Your task to perform on an android device: Open Google Chrome and open the bookmarks view Image 0: 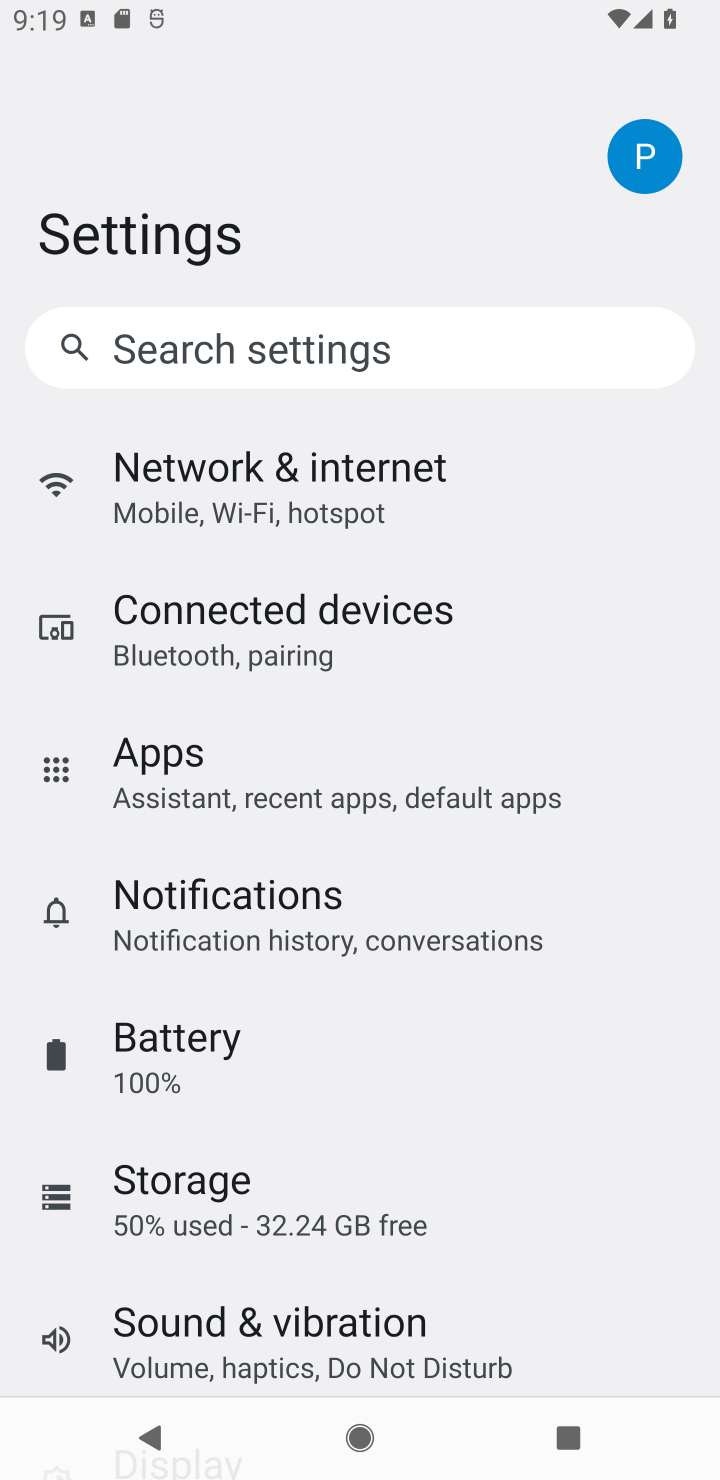
Step 0: press home button
Your task to perform on an android device: Open Google Chrome and open the bookmarks view Image 1: 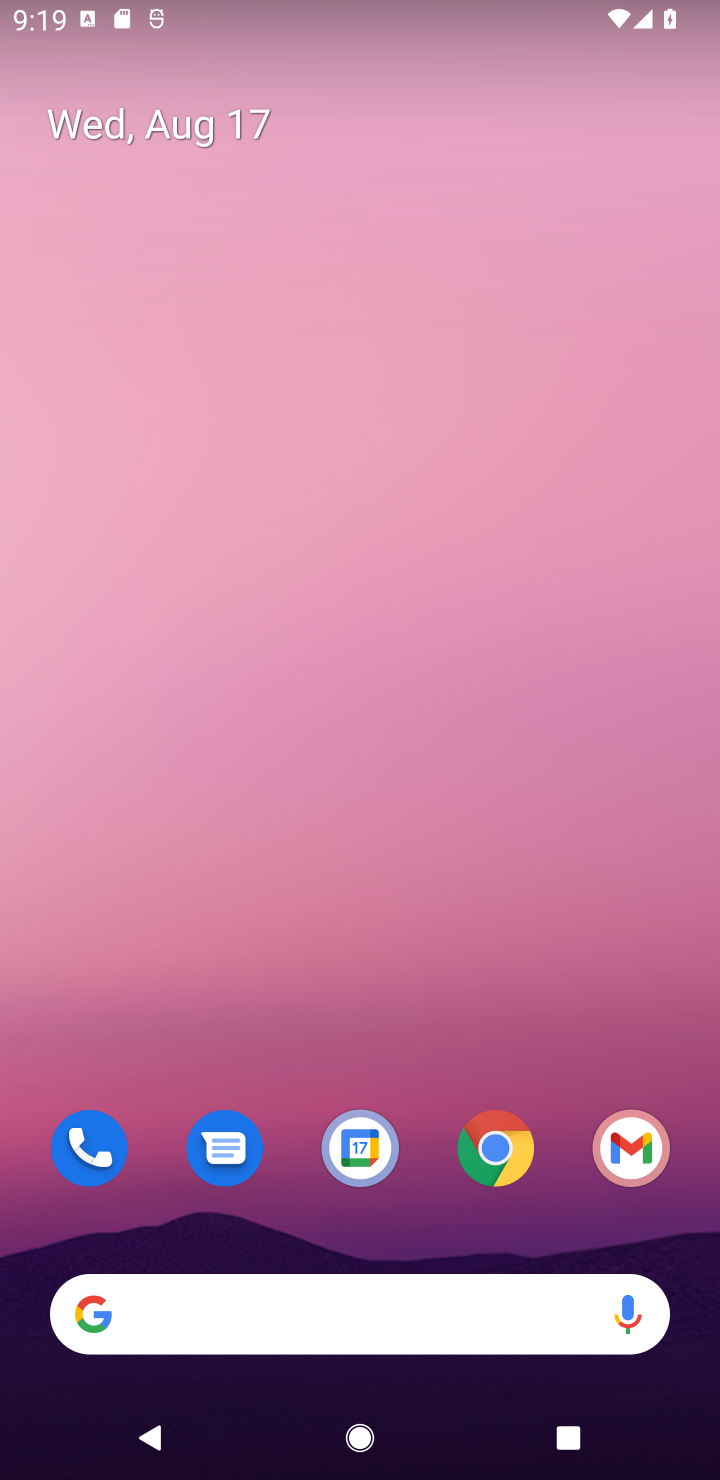
Step 1: click (496, 1148)
Your task to perform on an android device: Open Google Chrome and open the bookmarks view Image 2: 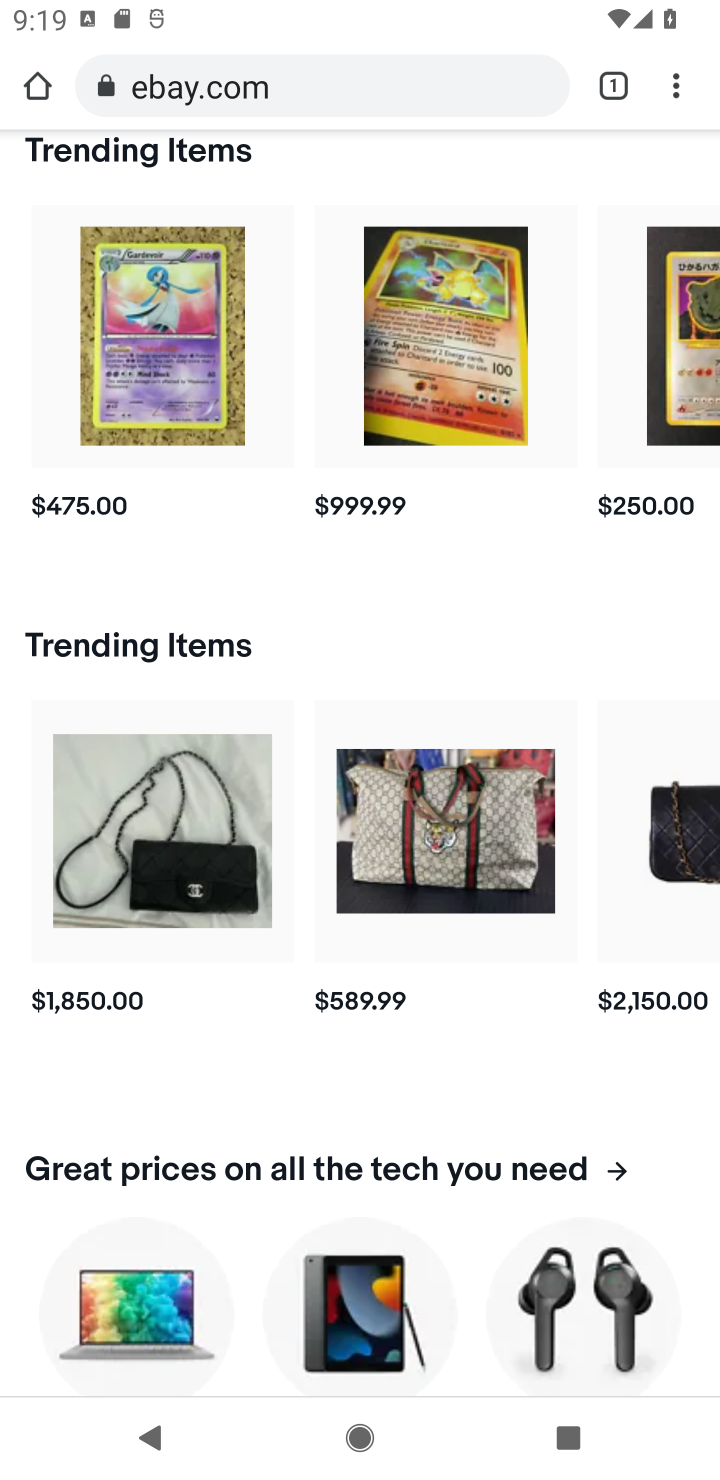
Step 2: click (669, 96)
Your task to perform on an android device: Open Google Chrome and open the bookmarks view Image 3: 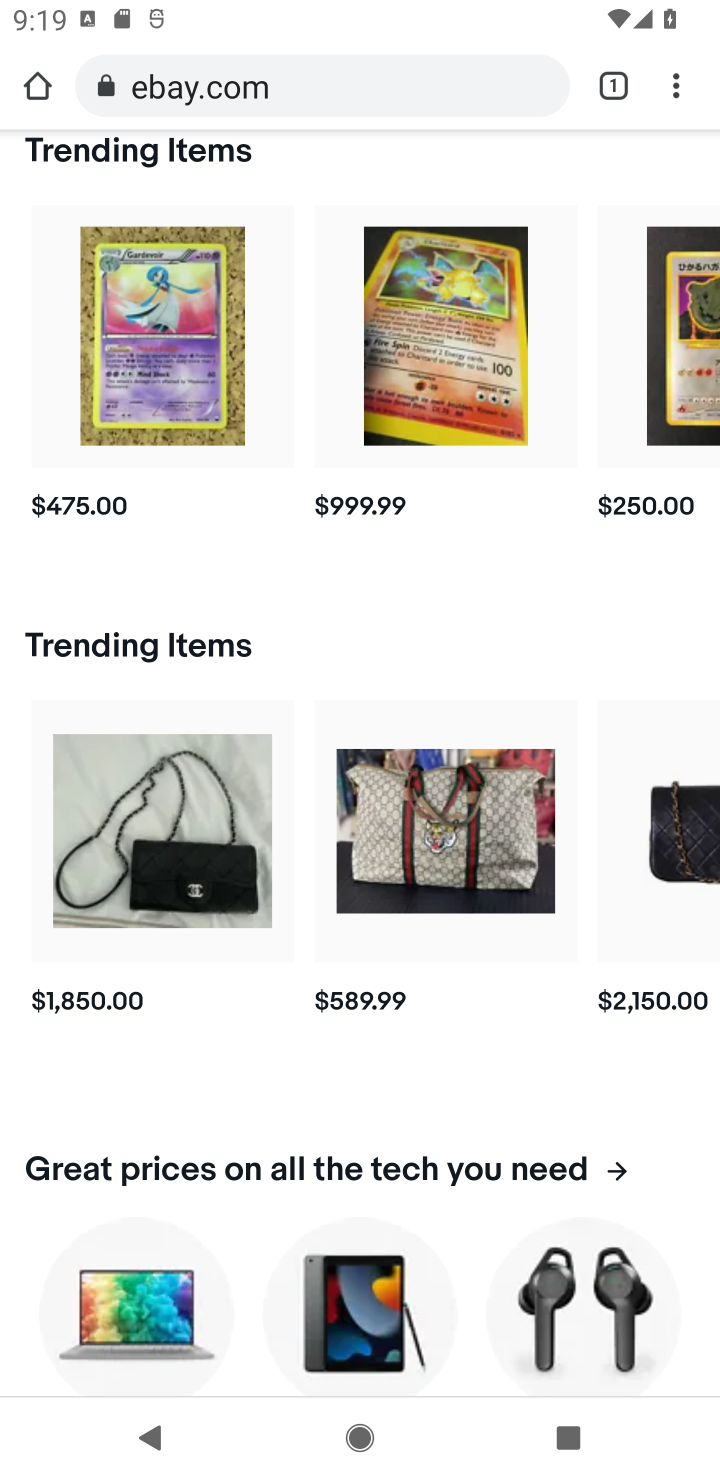
Step 3: click (667, 102)
Your task to perform on an android device: Open Google Chrome and open the bookmarks view Image 4: 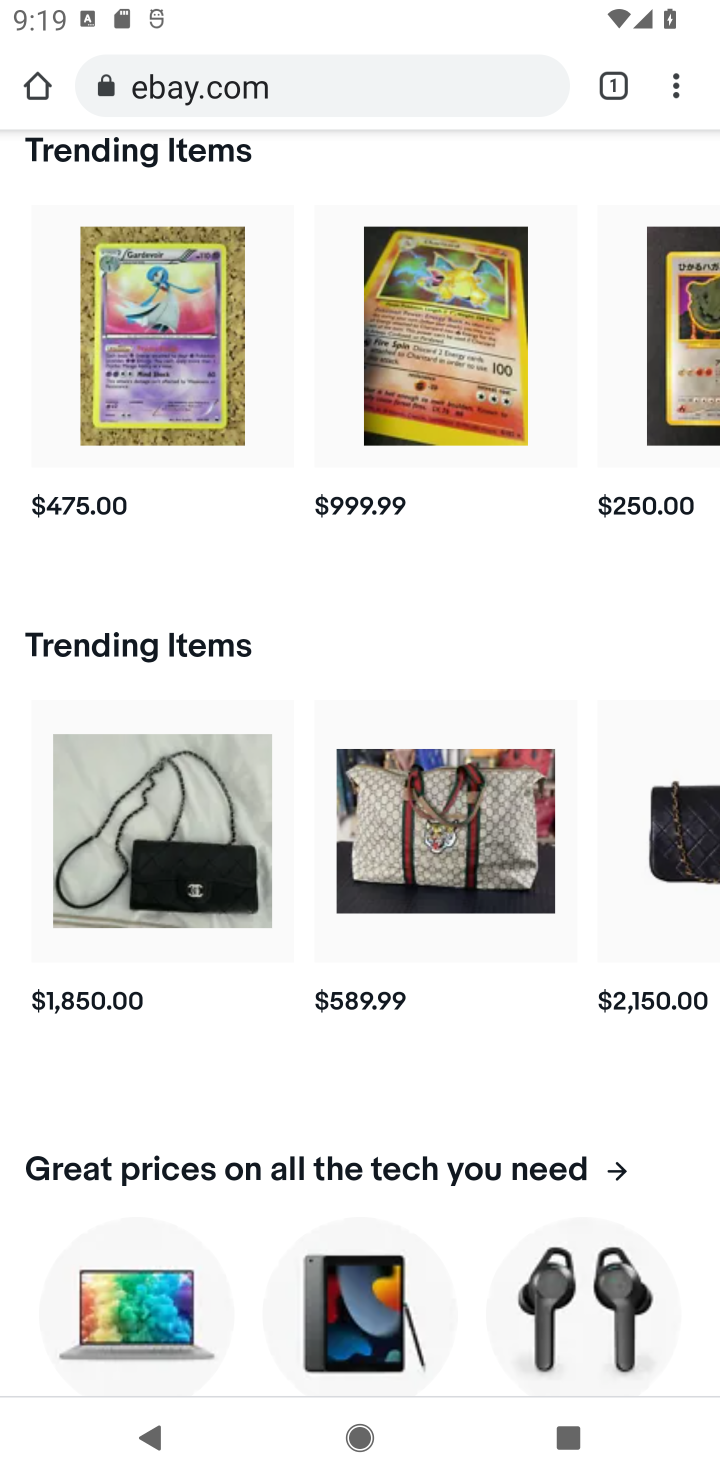
Step 4: click (662, 98)
Your task to perform on an android device: Open Google Chrome and open the bookmarks view Image 5: 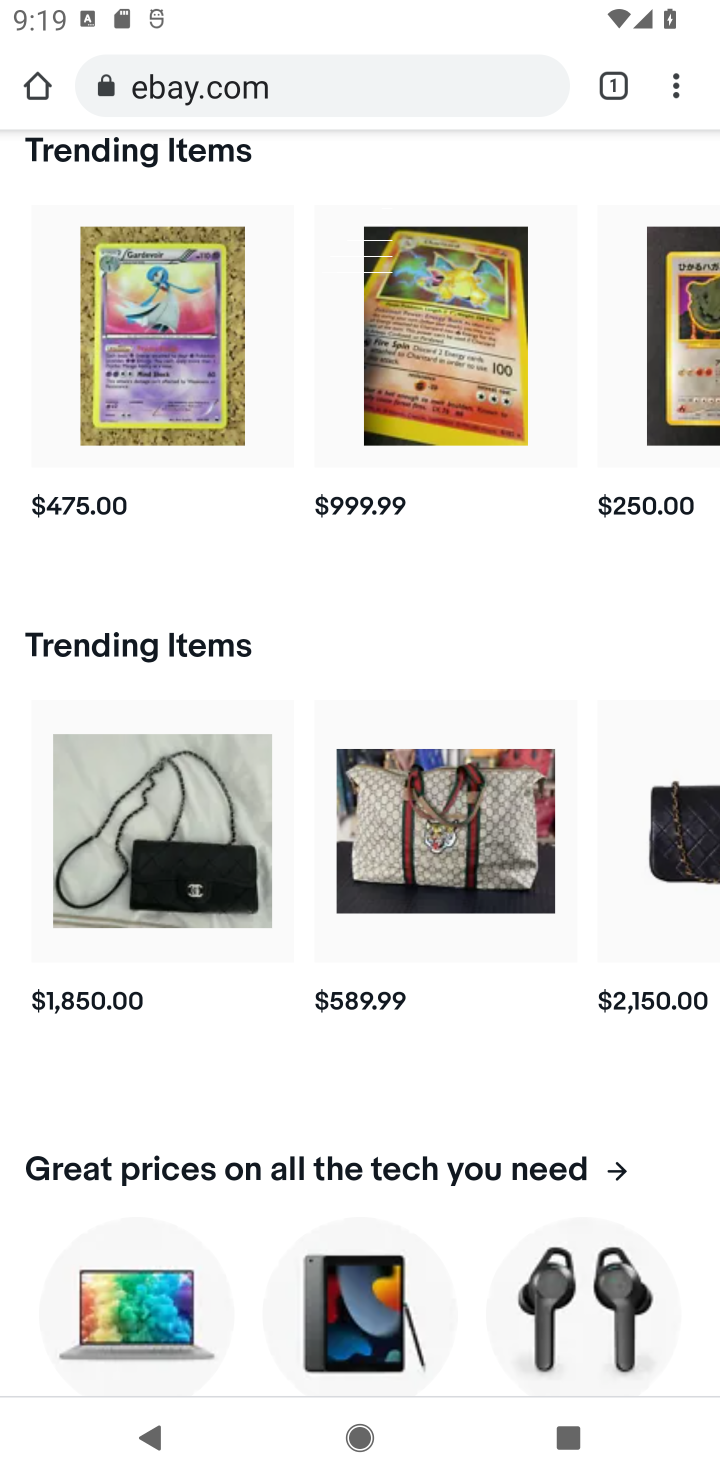
Step 5: click (682, 104)
Your task to perform on an android device: Open Google Chrome and open the bookmarks view Image 6: 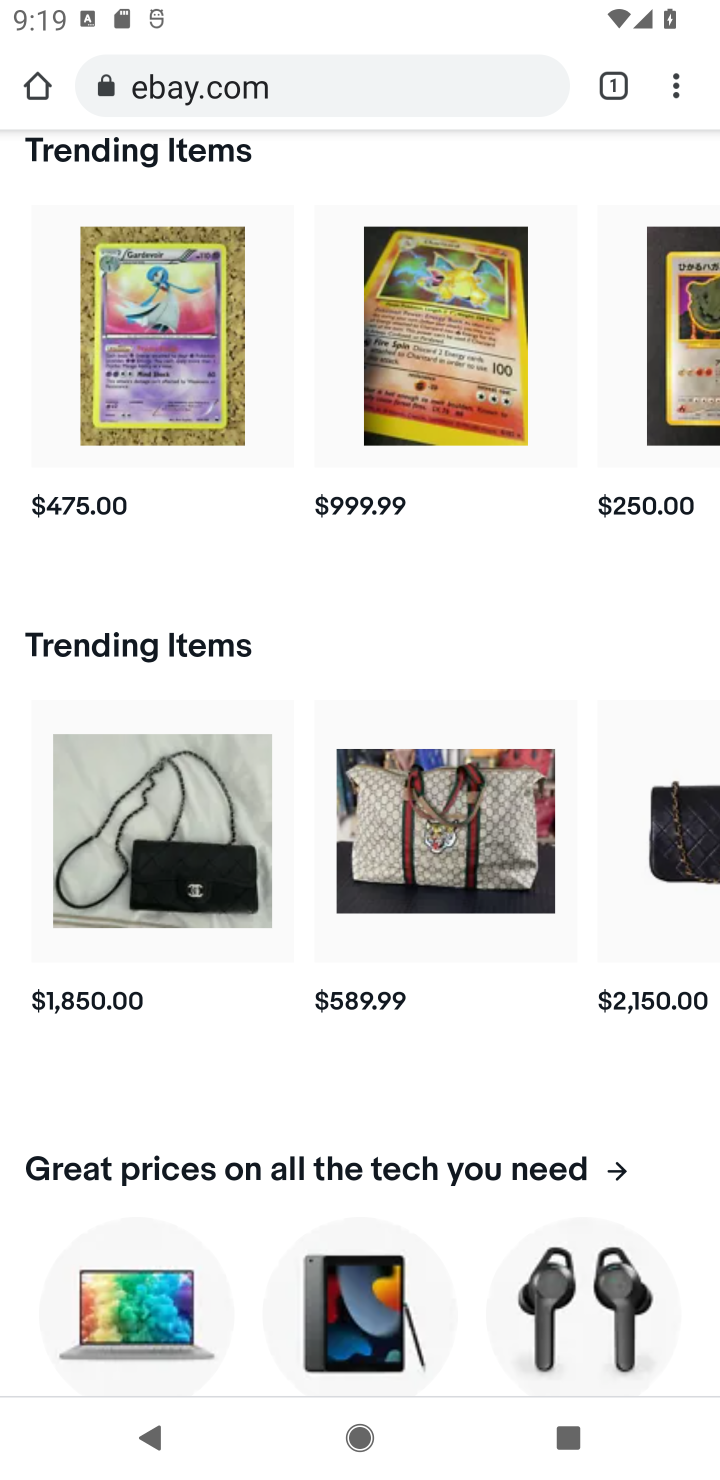
Step 6: click (673, 99)
Your task to perform on an android device: Open Google Chrome and open the bookmarks view Image 7: 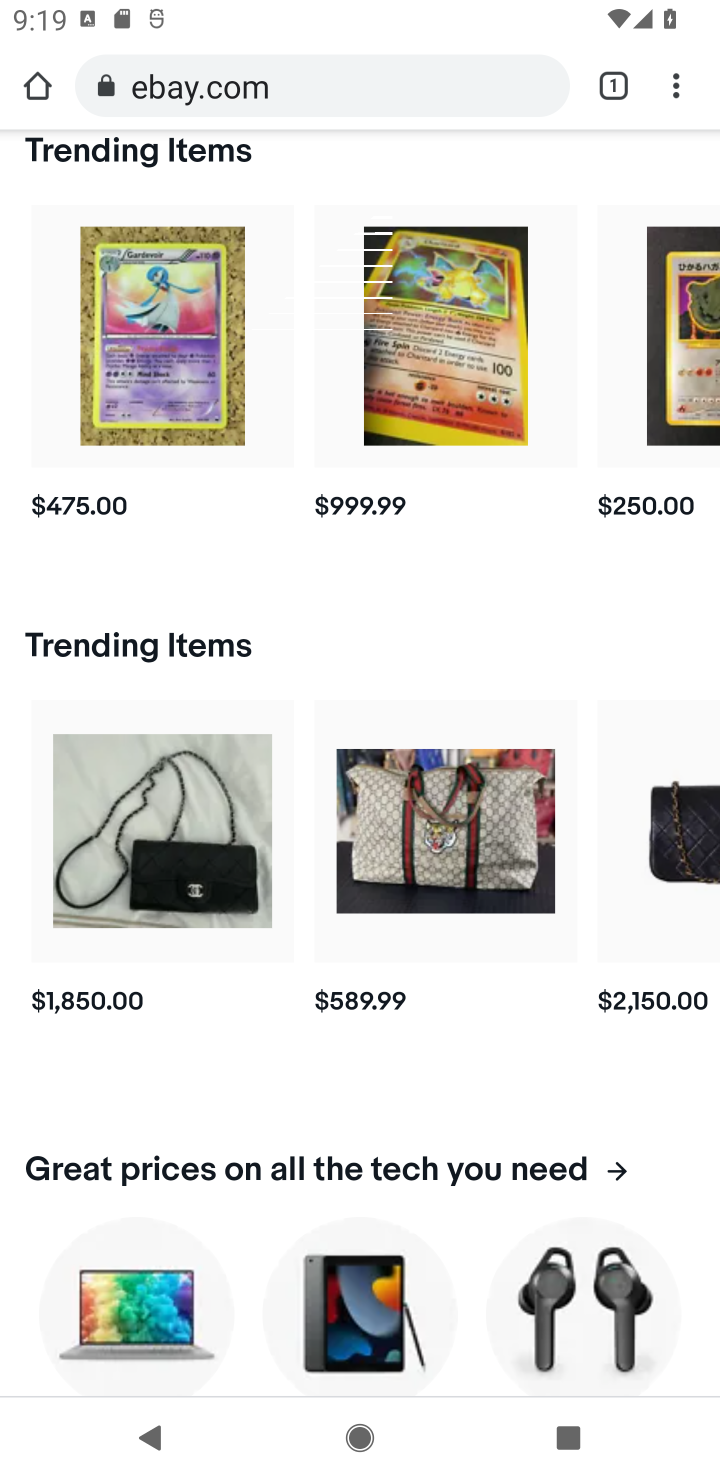
Step 7: click (648, 100)
Your task to perform on an android device: Open Google Chrome and open the bookmarks view Image 8: 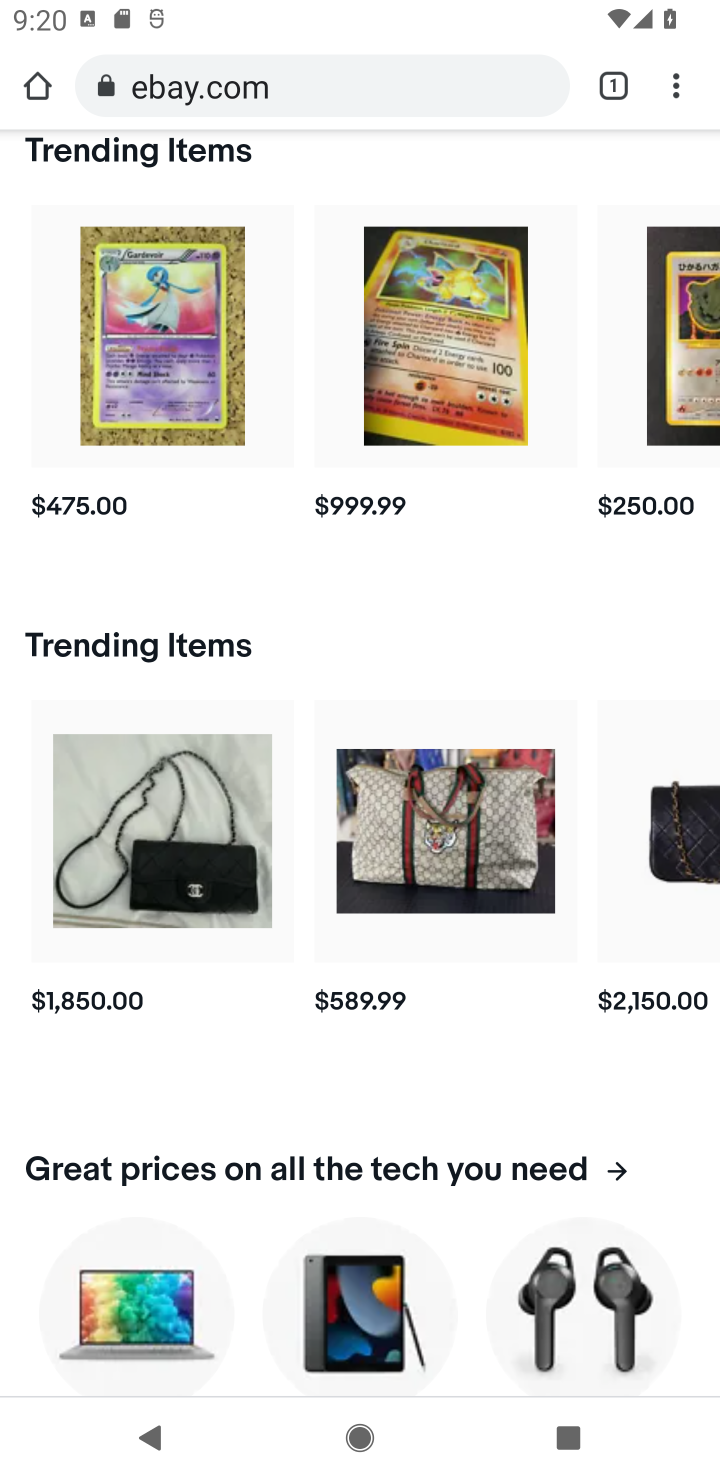
Step 8: click (663, 95)
Your task to perform on an android device: Open Google Chrome and open the bookmarks view Image 9: 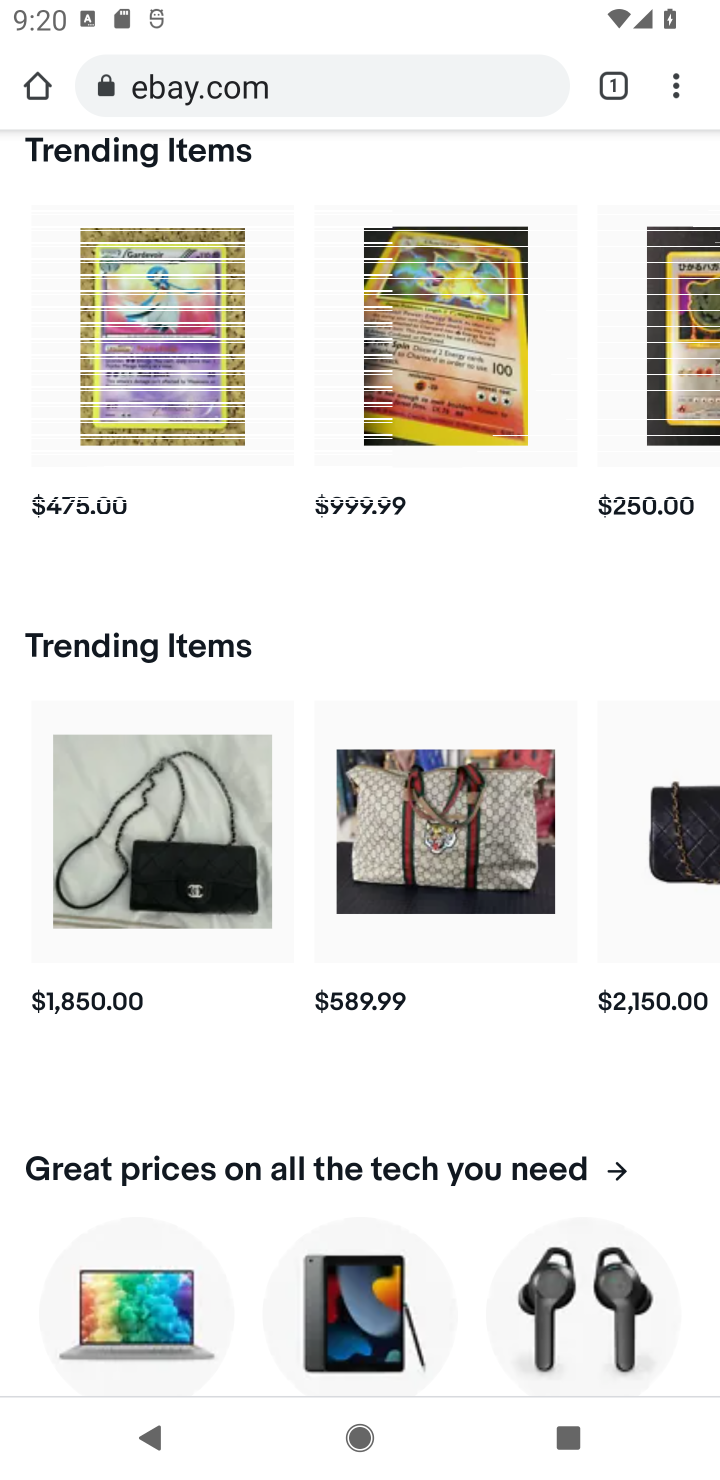
Step 9: click (671, 102)
Your task to perform on an android device: Open Google Chrome and open the bookmarks view Image 10: 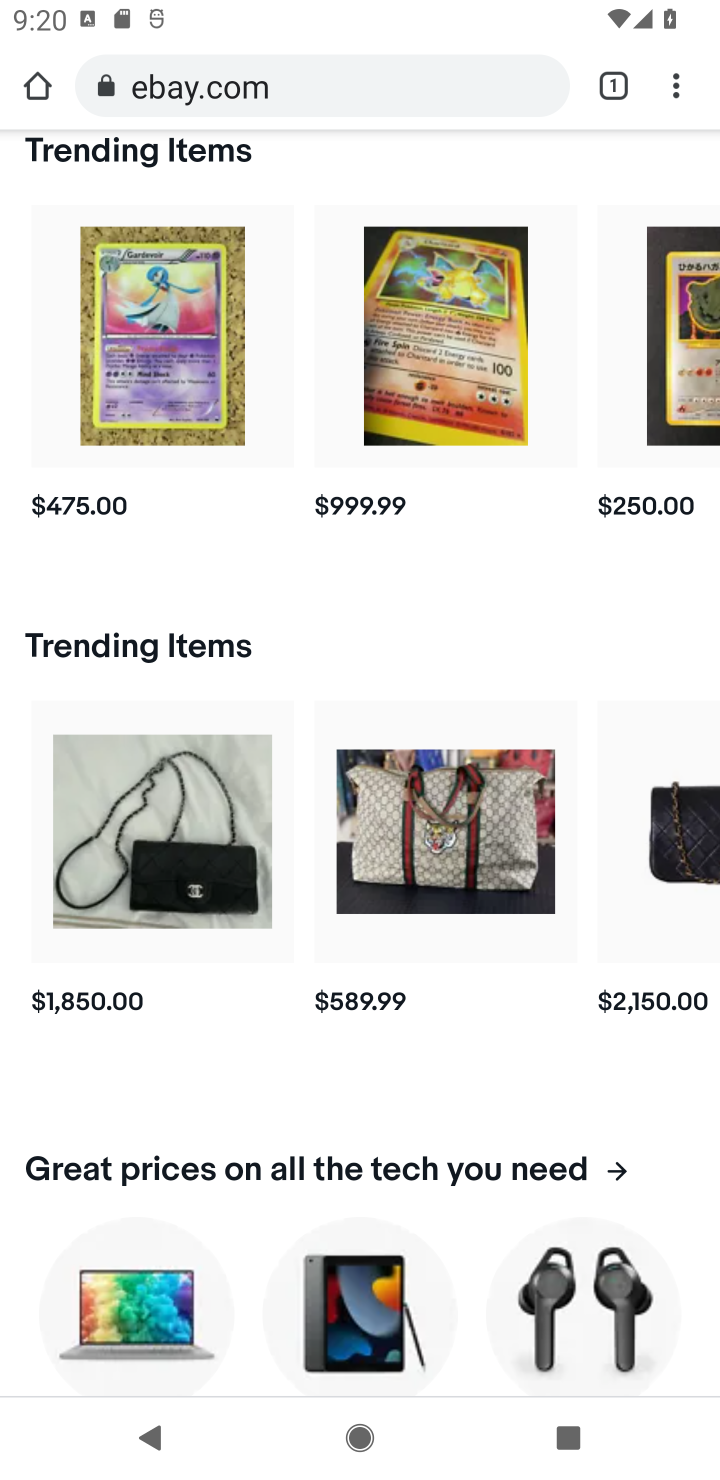
Step 10: task complete